Your task to perform on an android device: Empty the shopping cart on target. Search for "asus zenbook" on target, select the first entry, and add it to the cart. Image 0: 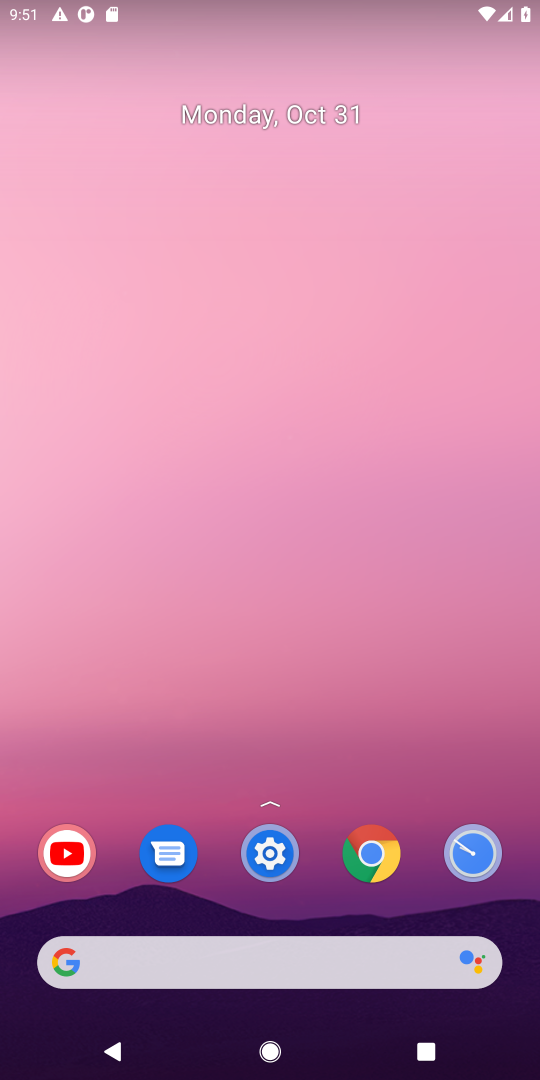
Step 0: click (188, 957)
Your task to perform on an android device: Empty the shopping cart on target. Search for "asus zenbook" on target, select the first entry, and add it to the cart. Image 1: 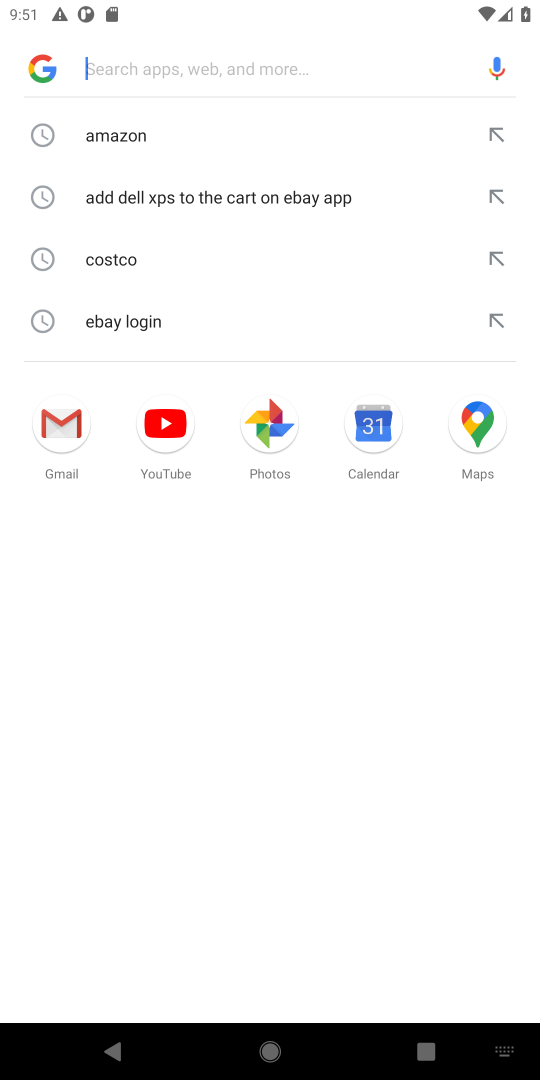
Step 1: type "target"
Your task to perform on an android device: Empty the shopping cart on target. Search for "asus zenbook" on target, select the first entry, and add it to the cart. Image 2: 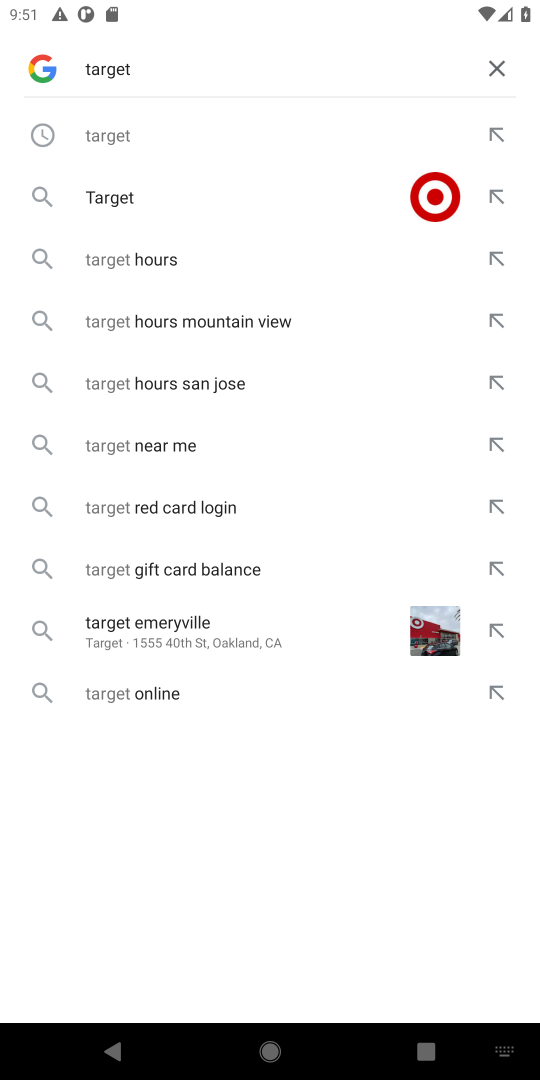
Step 2: click (110, 197)
Your task to perform on an android device: Empty the shopping cart on target. Search for "asus zenbook" on target, select the first entry, and add it to the cart. Image 3: 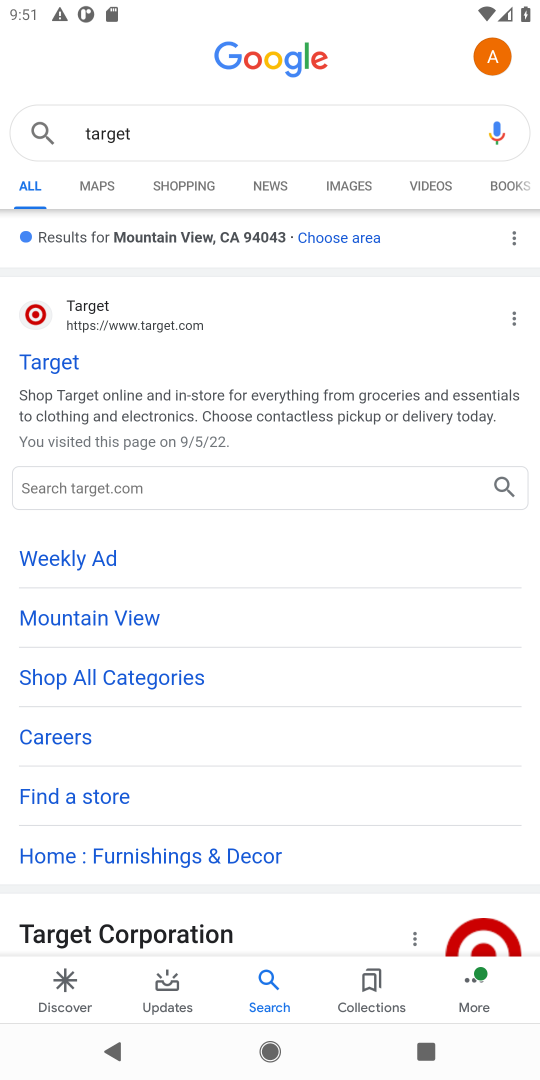
Step 3: click (45, 359)
Your task to perform on an android device: Empty the shopping cart on target. Search for "asus zenbook" on target, select the first entry, and add it to the cart. Image 4: 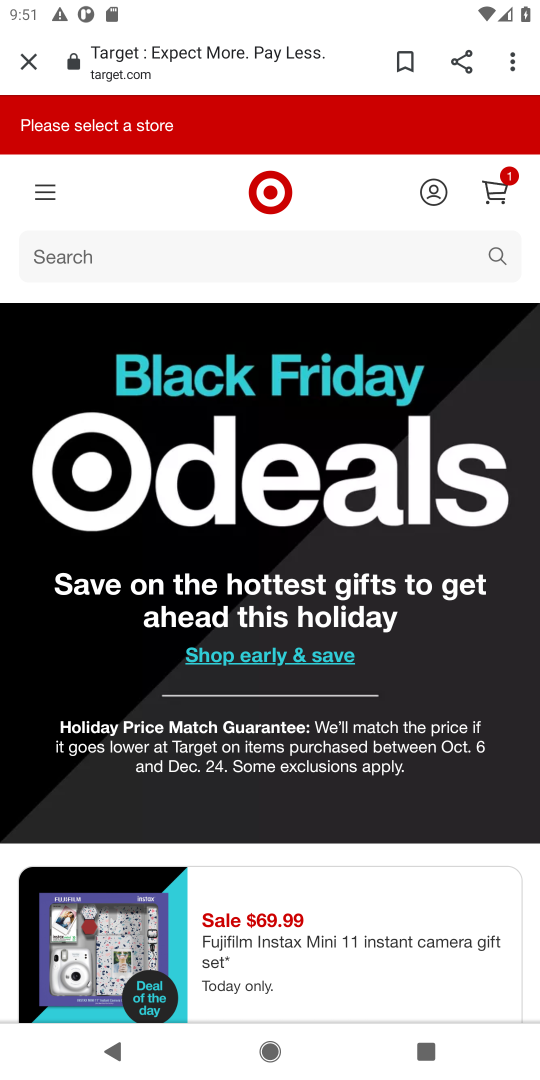
Step 4: click (492, 182)
Your task to perform on an android device: Empty the shopping cart on target. Search for "asus zenbook" on target, select the first entry, and add it to the cart. Image 5: 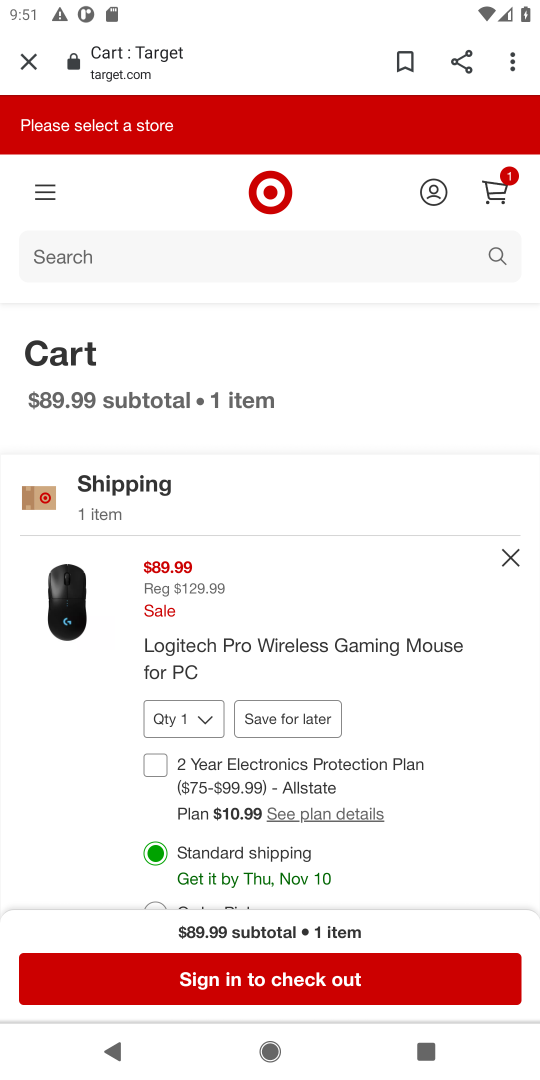
Step 5: click (509, 561)
Your task to perform on an android device: Empty the shopping cart on target. Search for "asus zenbook" on target, select the first entry, and add it to the cart. Image 6: 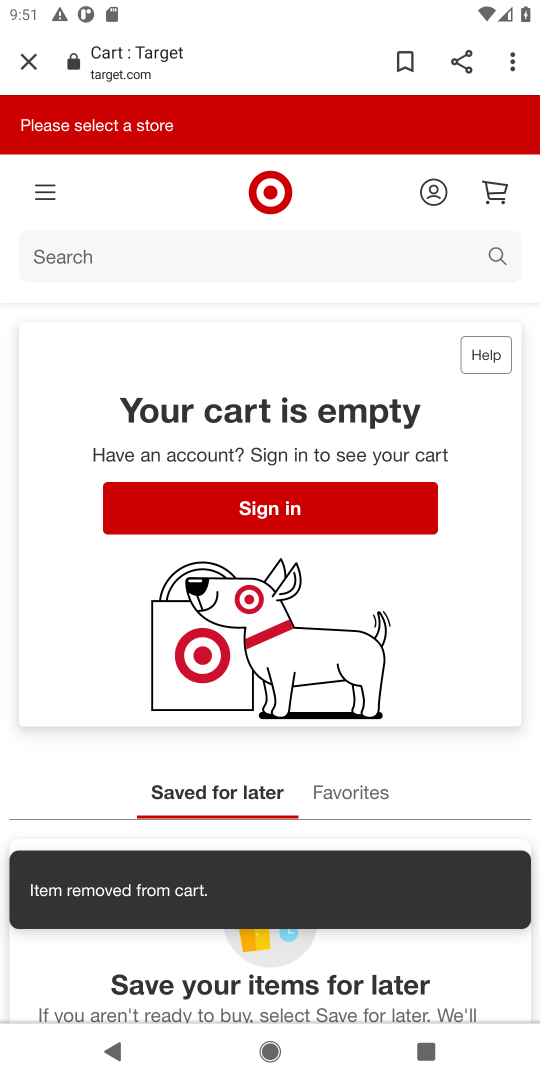
Step 6: click (98, 253)
Your task to perform on an android device: Empty the shopping cart on target. Search for "asus zenbook" on target, select the first entry, and add it to the cart. Image 7: 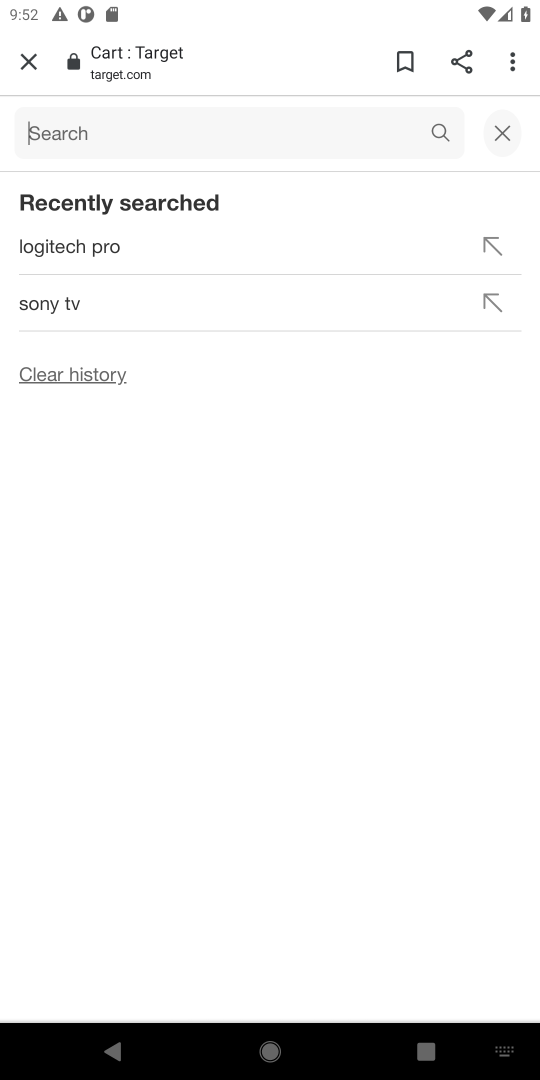
Step 7: type "asus zenbook"
Your task to perform on an android device: Empty the shopping cart on target. Search for "asus zenbook" on target, select the first entry, and add it to the cart. Image 8: 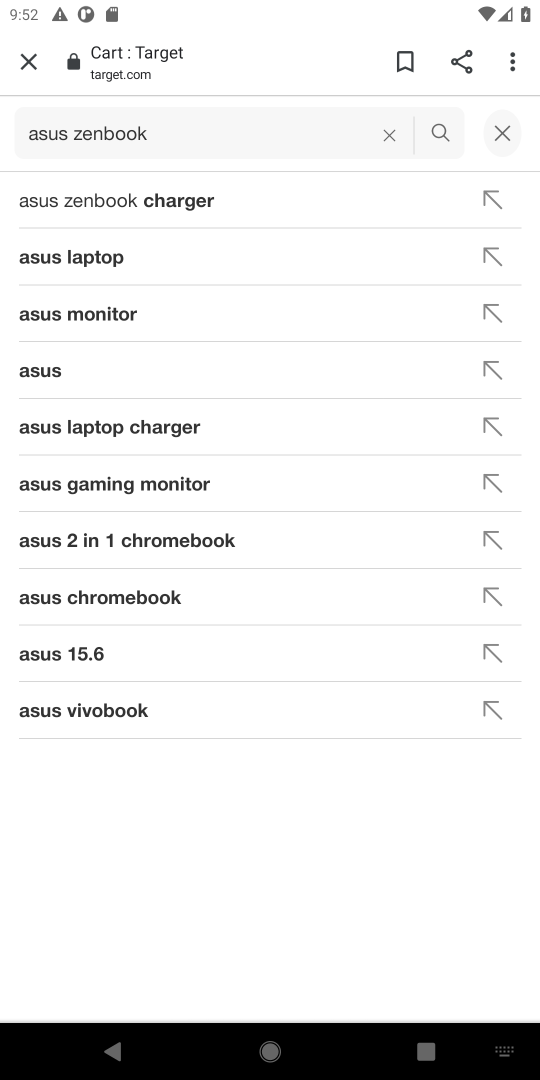
Step 8: click (431, 130)
Your task to perform on an android device: Empty the shopping cart on target. Search for "asus zenbook" on target, select the first entry, and add it to the cart. Image 9: 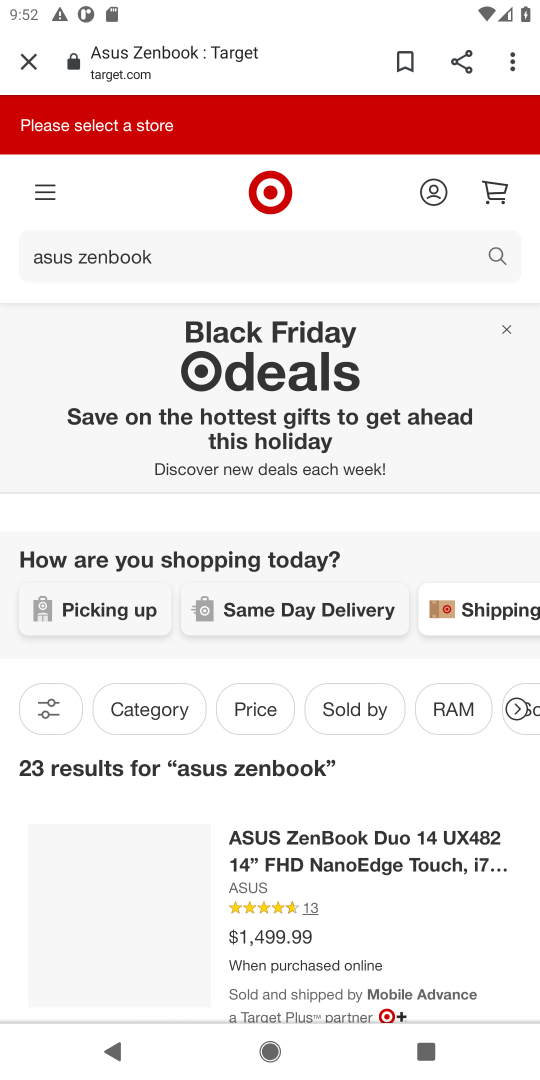
Step 9: drag from (380, 591) to (347, 405)
Your task to perform on an android device: Empty the shopping cart on target. Search for "asus zenbook" on target, select the first entry, and add it to the cart. Image 10: 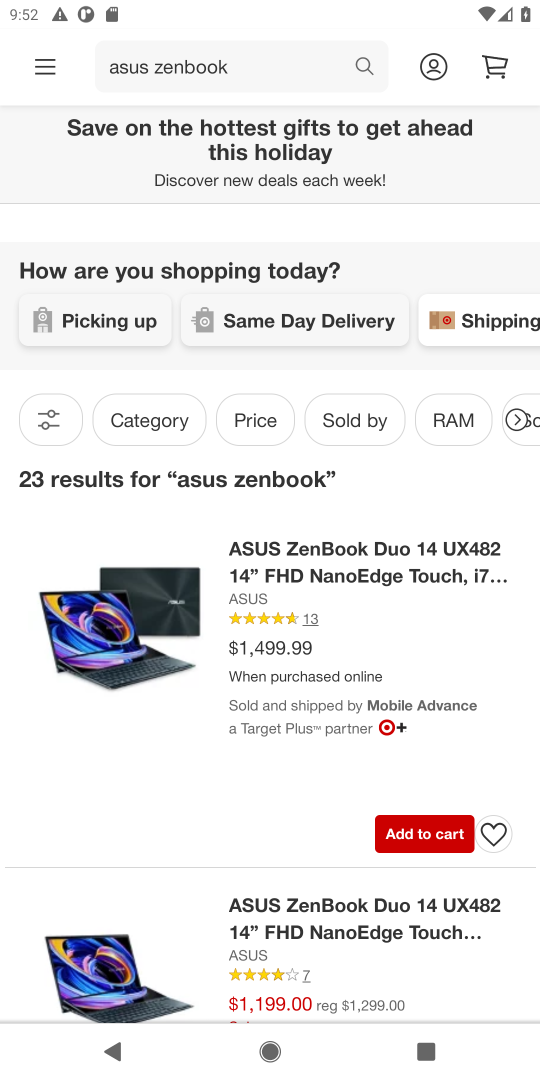
Step 10: click (407, 838)
Your task to perform on an android device: Empty the shopping cart on target. Search for "asus zenbook" on target, select the first entry, and add it to the cart. Image 11: 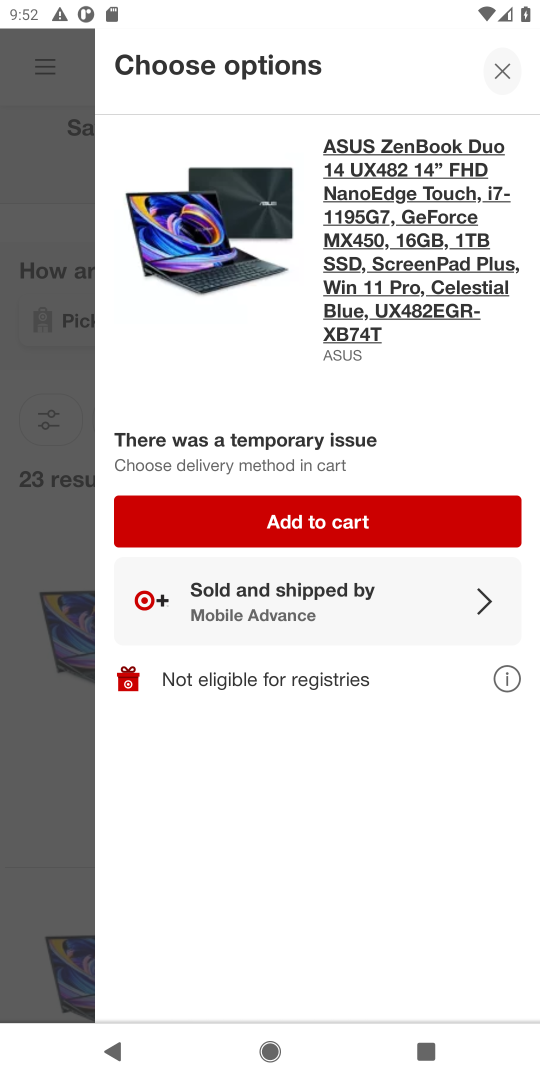
Step 11: click (259, 512)
Your task to perform on an android device: Empty the shopping cart on target. Search for "asus zenbook" on target, select the first entry, and add it to the cart. Image 12: 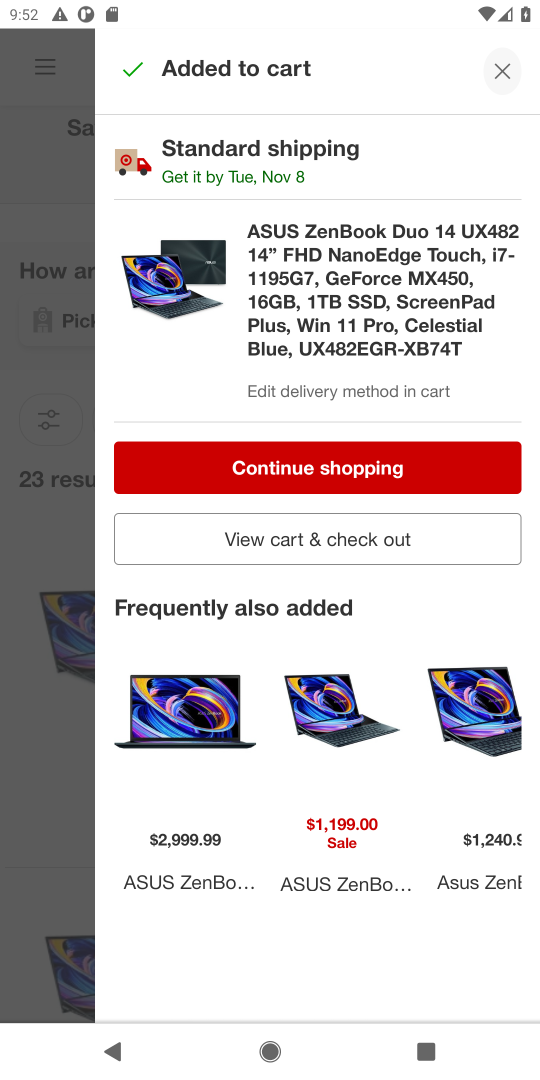
Step 12: task complete